Your task to perform on an android device: Turn on the flashlight Image 0: 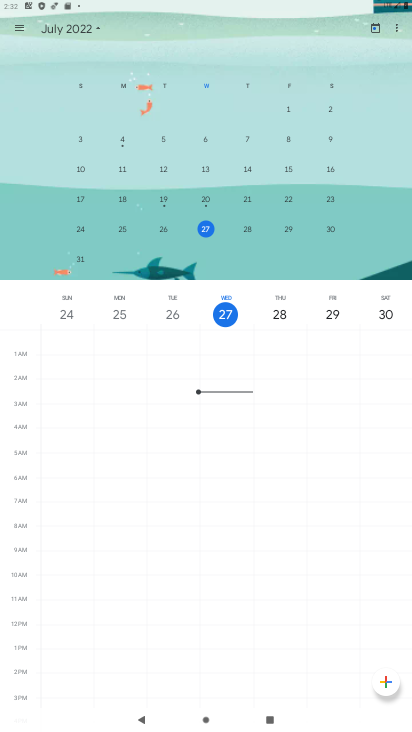
Step 0: press home button
Your task to perform on an android device: Turn on the flashlight Image 1: 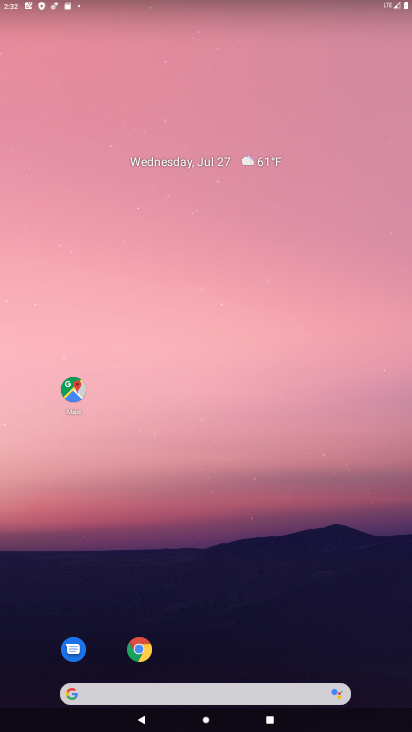
Step 1: drag from (186, 464) to (179, 76)
Your task to perform on an android device: Turn on the flashlight Image 2: 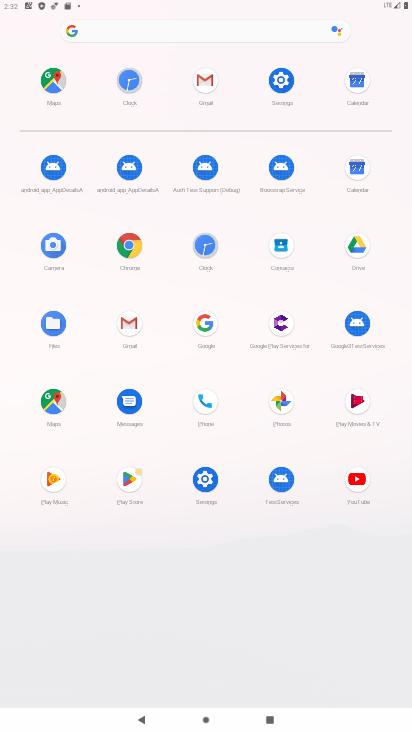
Step 2: click (274, 94)
Your task to perform on an android device: Turn on the flashlight Image 3: 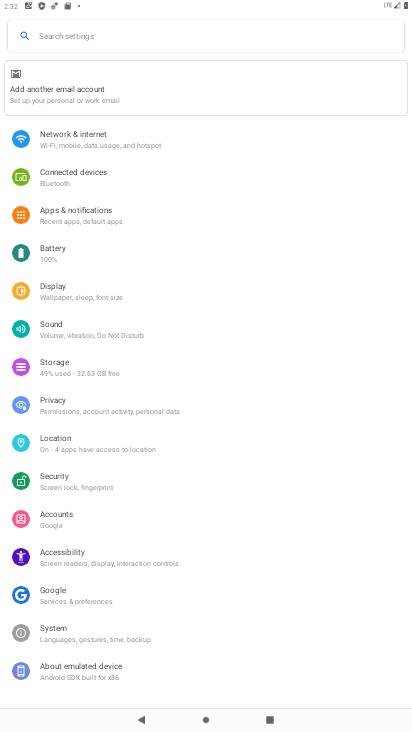
Step 3: task complete